Your task to perform on an android device: turn on javascript in the chrome app Image 0: 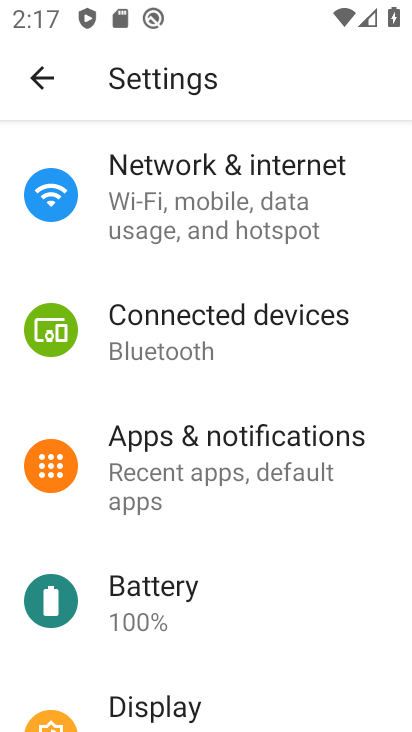
Step 0: press back button
Your task to perform on an android device: turn on javascript in the chrome app Image 1: 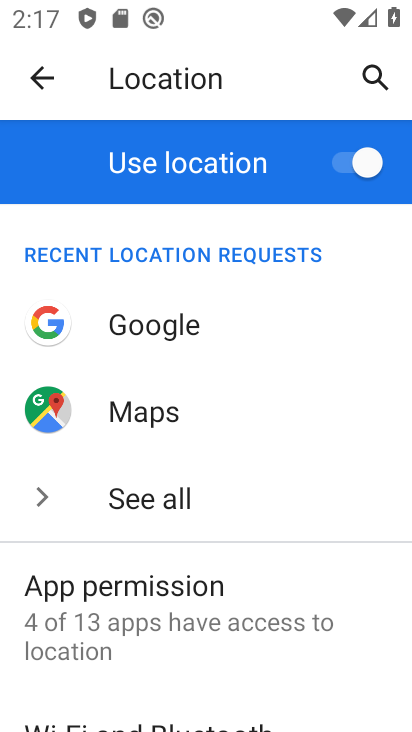
Step 1: press back button
Your task to perform on an android device: turn on javascript in the chrome app Image 2: 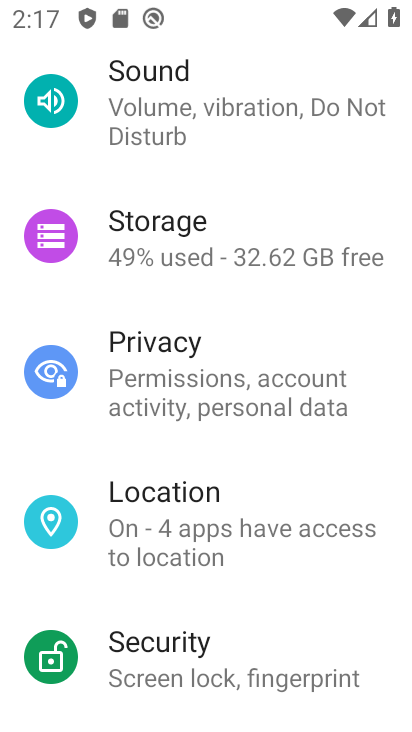
Step 2: press back button
Your task to perform on an android device: turn on javascript in the chrome app Image 3: 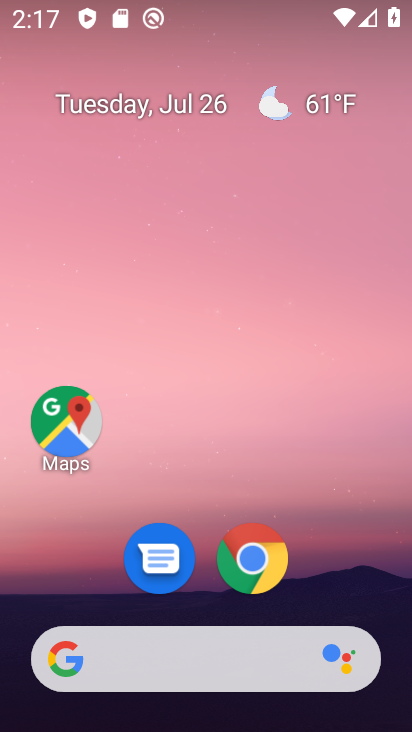
Step 3: click (276, 559)
Your task to perform on an android device: turn on javascript in the chrome app Image 4: 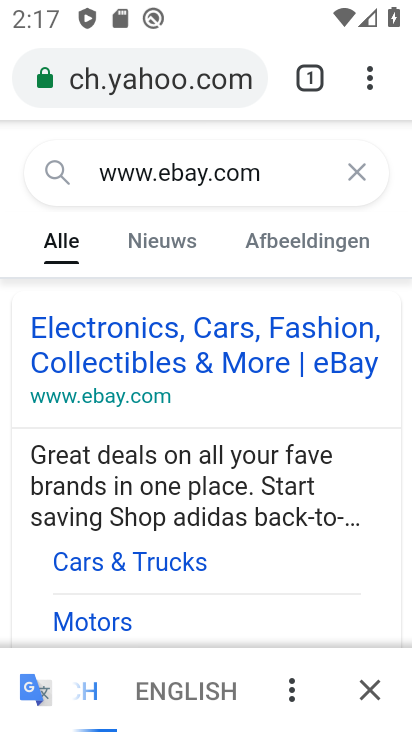
Step 4: drag from (366, 73) to (154, 618)
Your task to perform on an android device: turn on javascript in the chrome app Image 5: 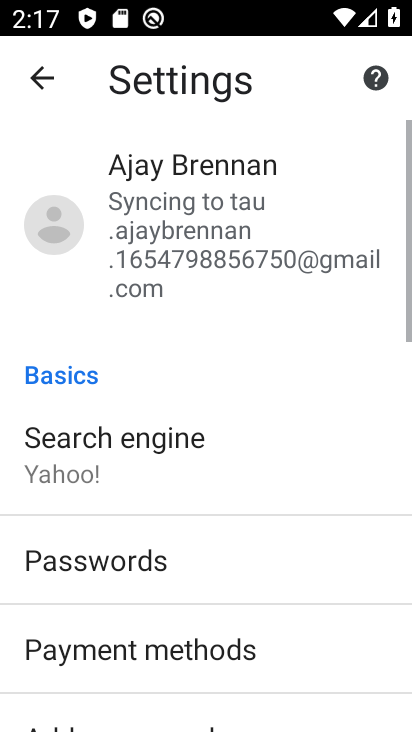
Step 5: drag from (199, 666) to (283, 74)
Your task to perform on an android device: turn on javascript in the chrome app Image 6: 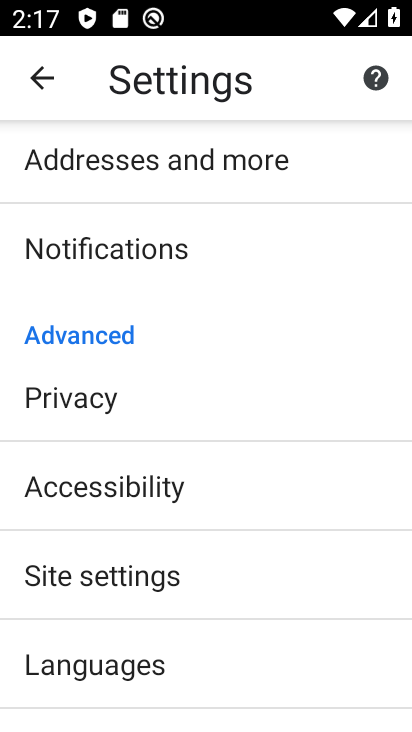
Step 6: click (144, 582)
Your task to perform on an android device: turn on javascript in the chrome app Image 7: 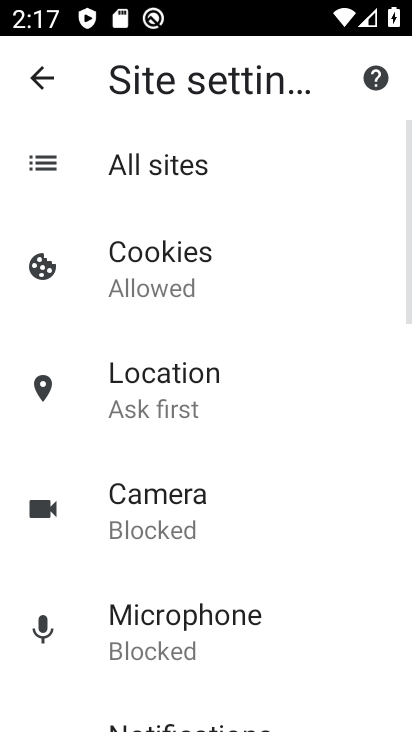
Step 7: drag from (165, 643) to (307, 173)
Your task to perform on an android device: turn on javascript in the chrome app Image 8: 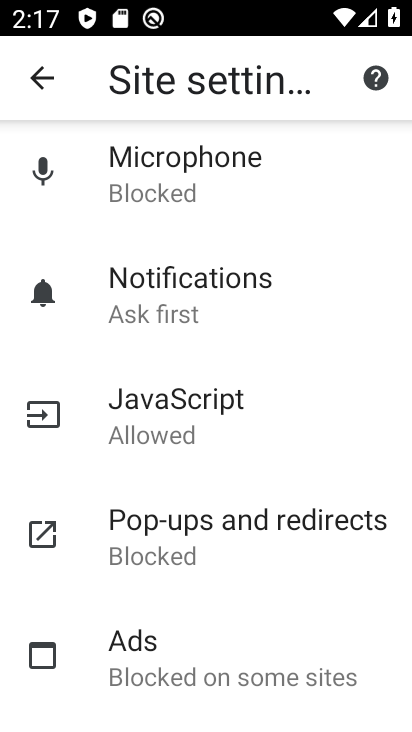
Step 8: click (150, 421)
Your task to perform on an android device: turn on javascript in the chrome app Image 9: 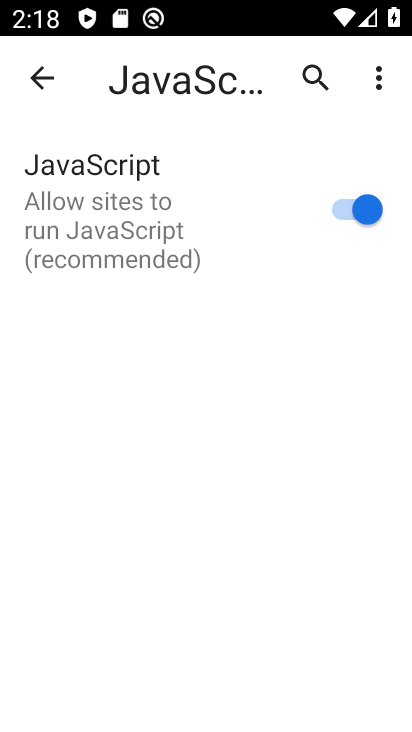
Step 9: task complete